Your task to perform on an android device: Open eBay Image 0: 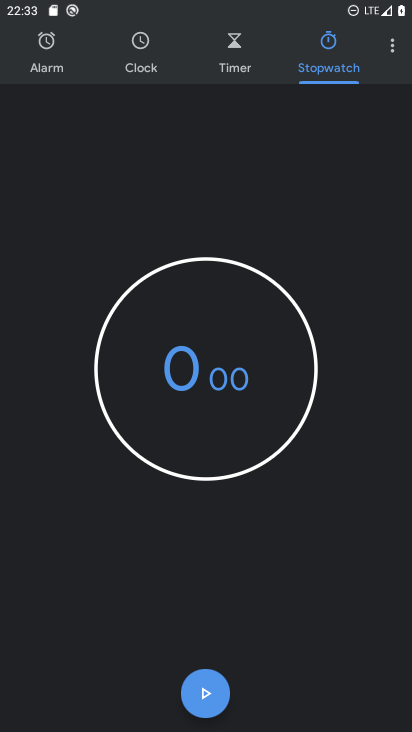
Step 0: press home button
Your task to perform on an android device: Open eBay Image 1: 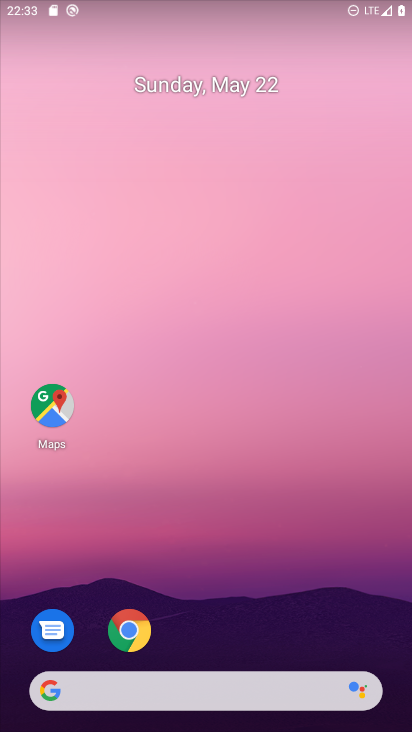
Step 1: click (130, 640)
Your task to perform on an android device: Open eBay Image 2: 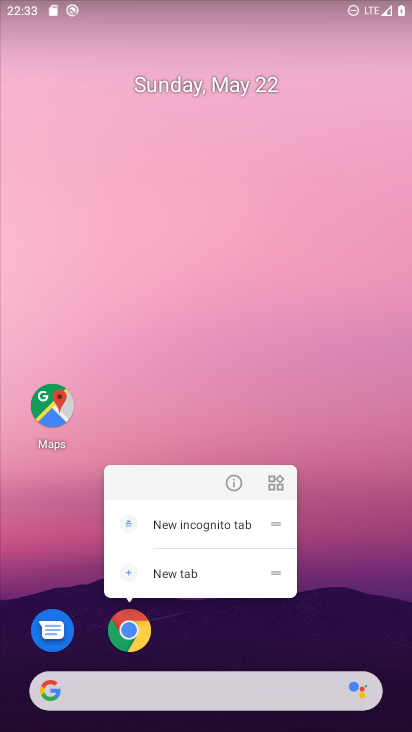
Step 2: click (133, 631)
Your task to perform on an android device: Open eBay Image 3: 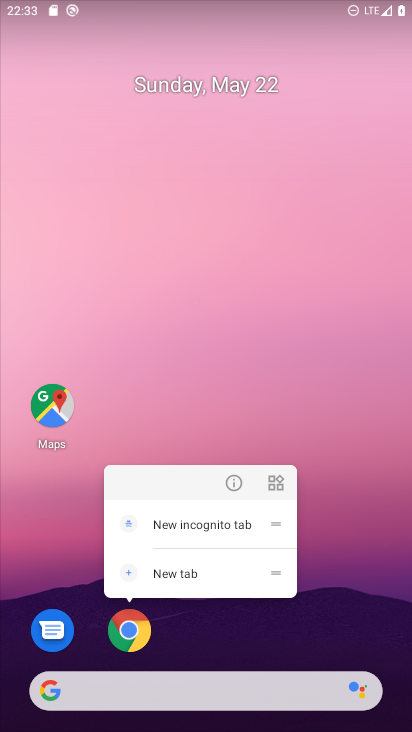
Step 3: click (128, 635)
Your task to perform on an android device: Open eBay Image 4: 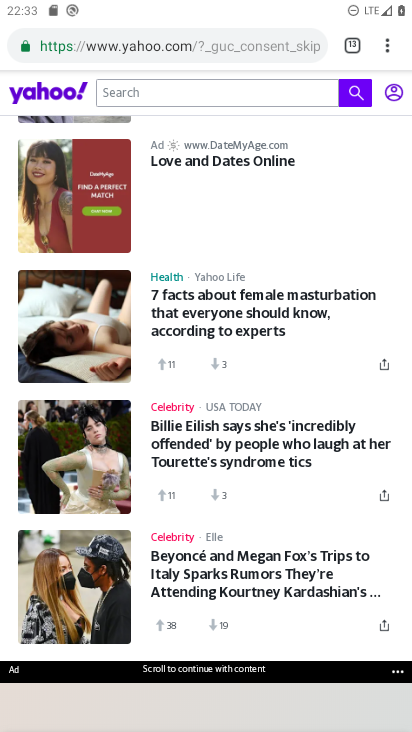
Step 4: drag from (387, 48) to (260, 90)
Your task to perform on an android device: Open eBay Image 5: 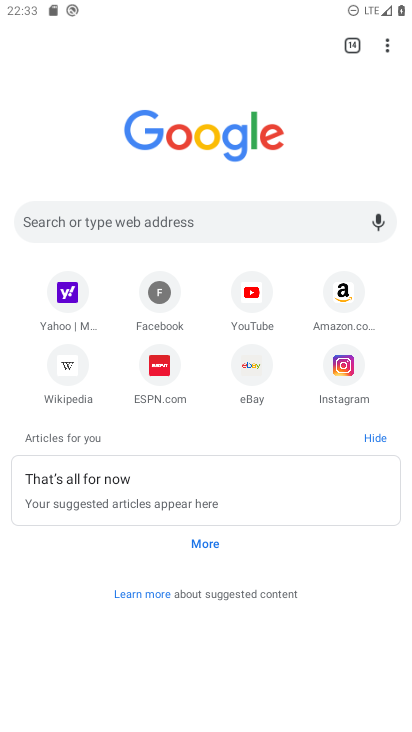
Step 5: click (260, 366)
Your task to perform on an android device: Open eBay Image 6: 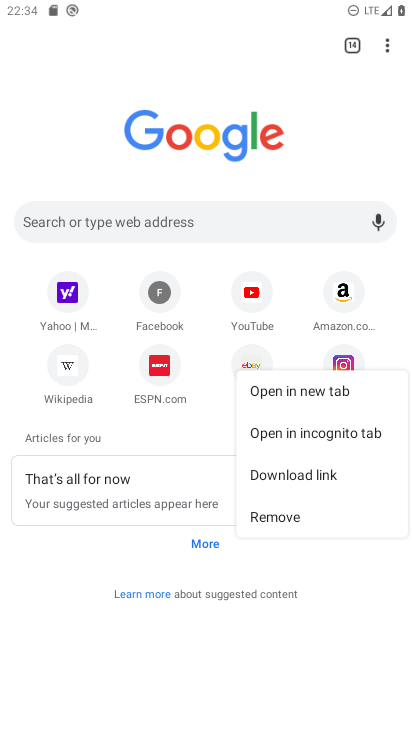
Step 6: click (252, 360)
Your task to perform on an android device: Open eBay Image 7: 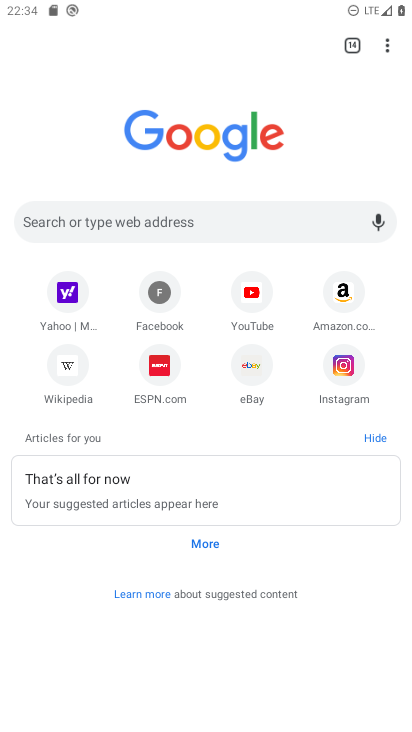
Step 7: click (255, 368)
Your task to perform on an android device: Open eBay Image 8: 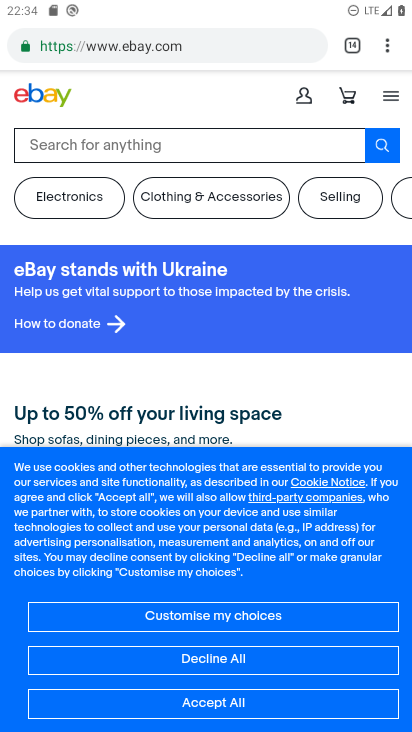
Step 8: task complete